Your task to perform on an android device: add a label to a message in the gmail app Image 0: 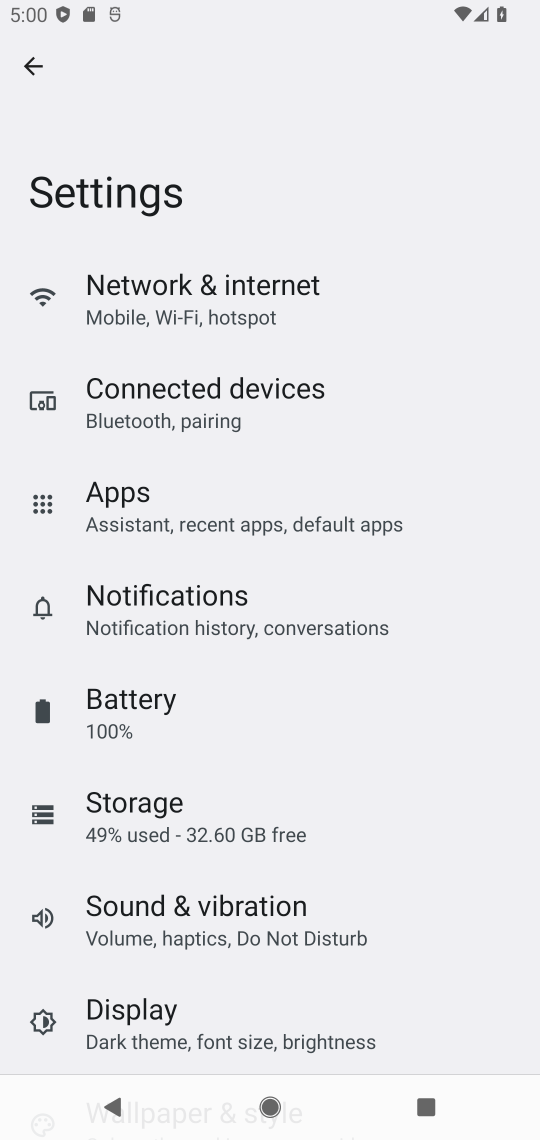
Step 0: press home button
Your task to perform on an android device: add a label to a message in the gmail app Image 1: 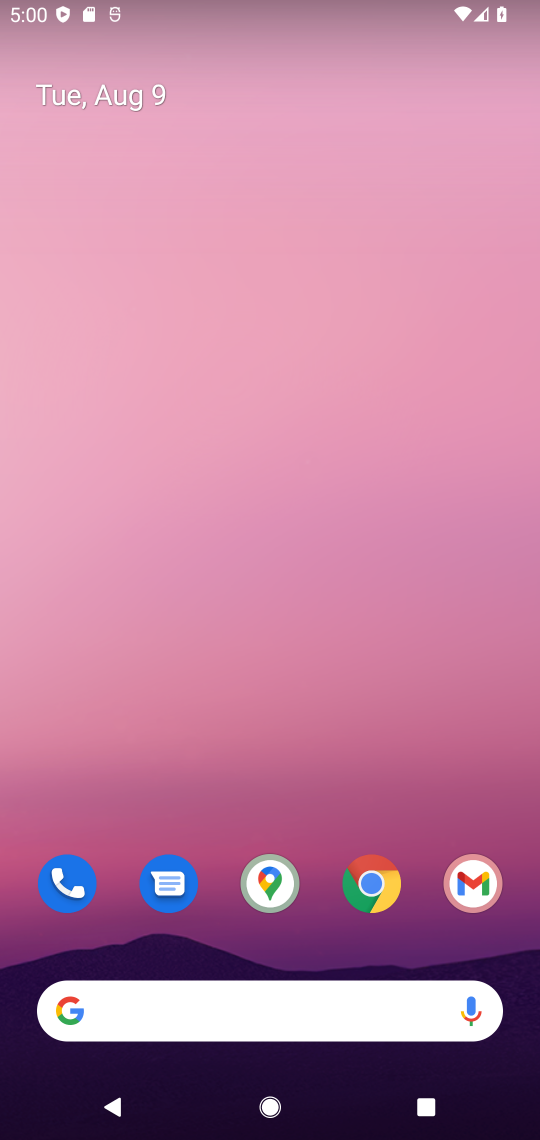
Step 1: click (466, 871)
Your task to perform on an android device: add a label to a message in the gmail app Image 2: 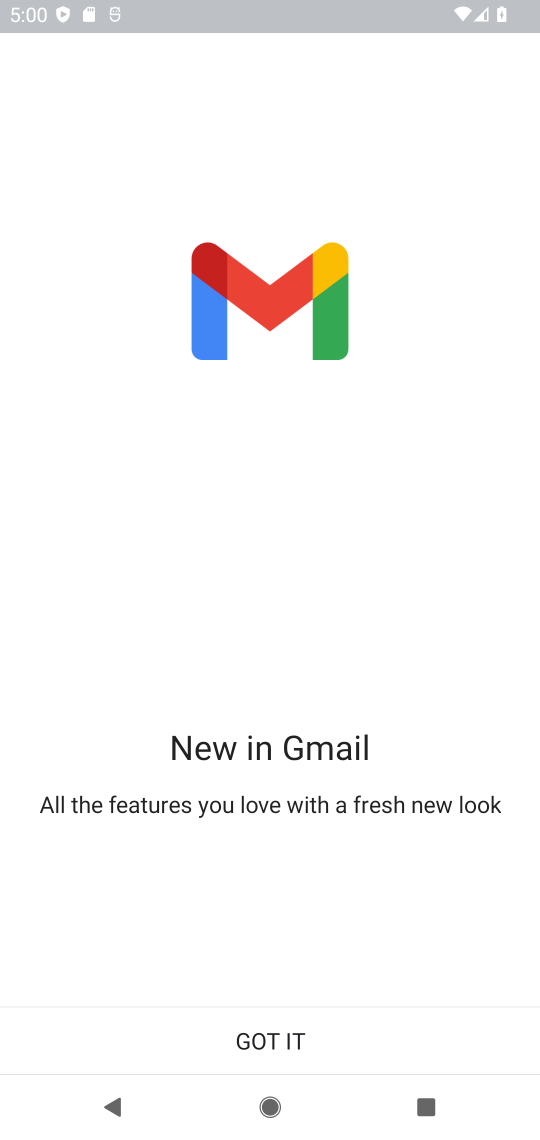
Step 2: click (296, 1027)
Your task to perform on an android device: add a label to a message in the gmail app Image 3: 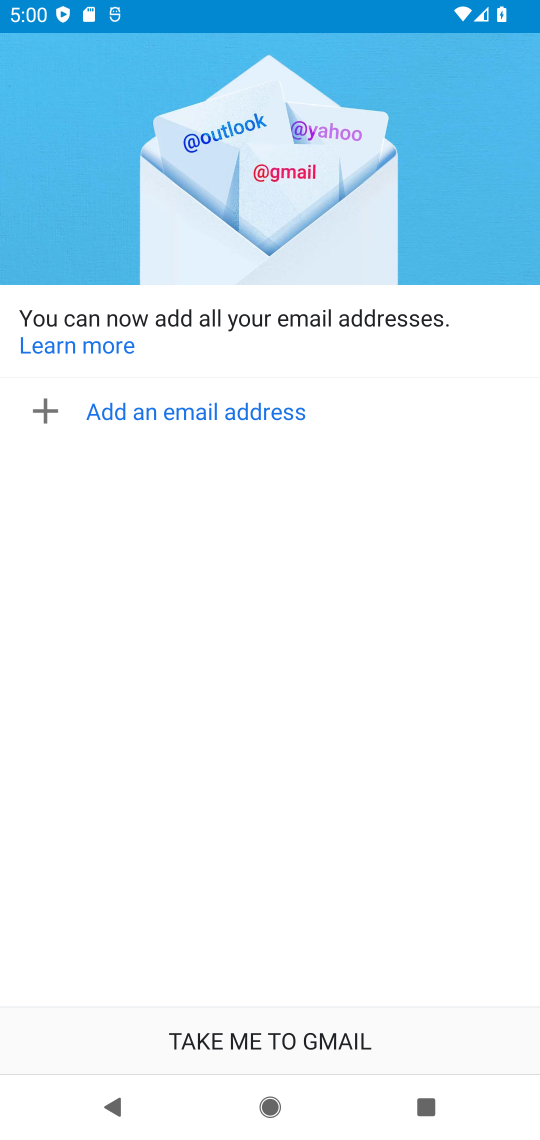
Step 3: click (333, 1040)
Your task to perform on an android device: add a label to a message in the gmail app Image 4: 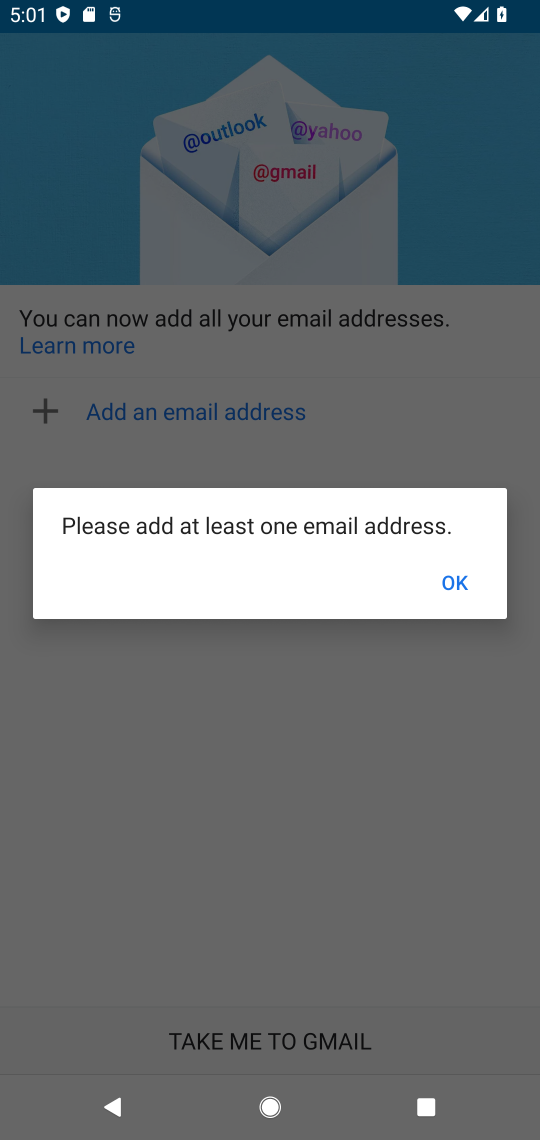
Step 4: task complete